Your task to perform on an android device: Open the calendar app, open the side menu, and click the "Day" option Image 0: 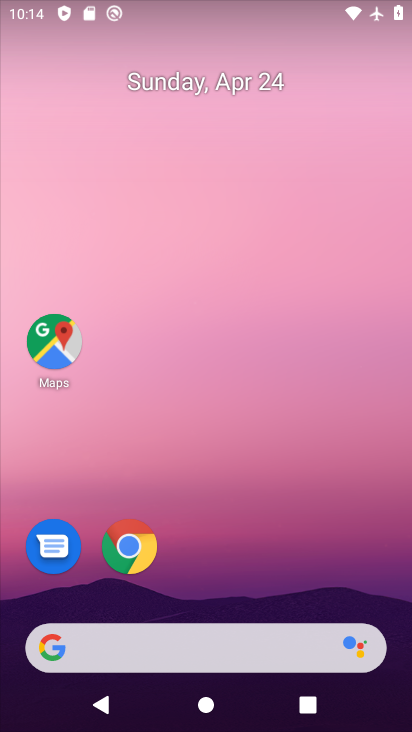
Step 0: drag from (393, 511) to (410, 83)
Your task to perform on an android device: Open the calendar app, open the side menu, and click the "Day" option Image 1: 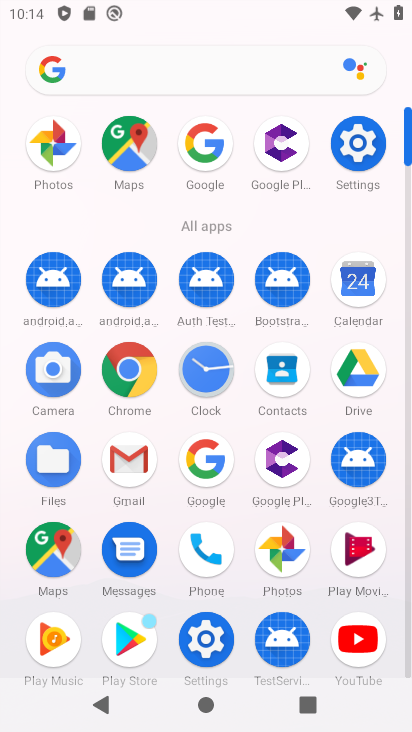
Step 1: click (353, 283)
Your task to perform on an android device: Open the calendar app, open the side menu, and click the "Day" option Image 2: 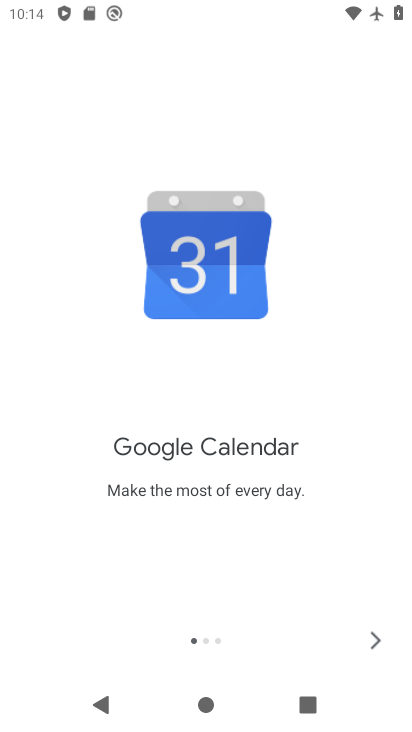
Step 2: click (370, 628)
Your task to perform on an android device: Open the calendar app, open the side menu, and click the "Day" option Image 3: 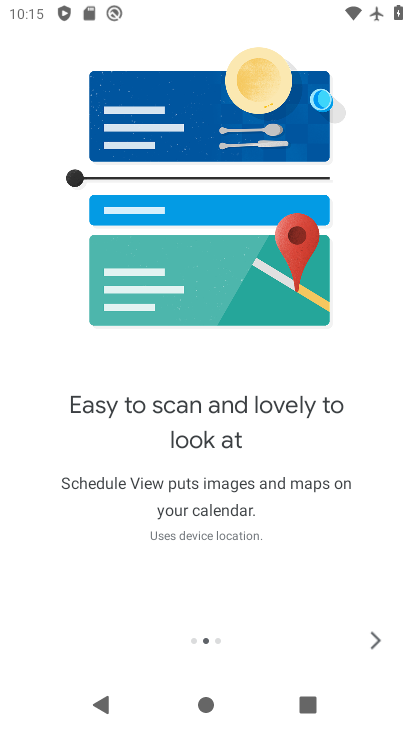
Step 3: click (371, 626)
Your task to perform on an android device: Open the calendar app, open the side menu, and click the "Day" option Image 4: 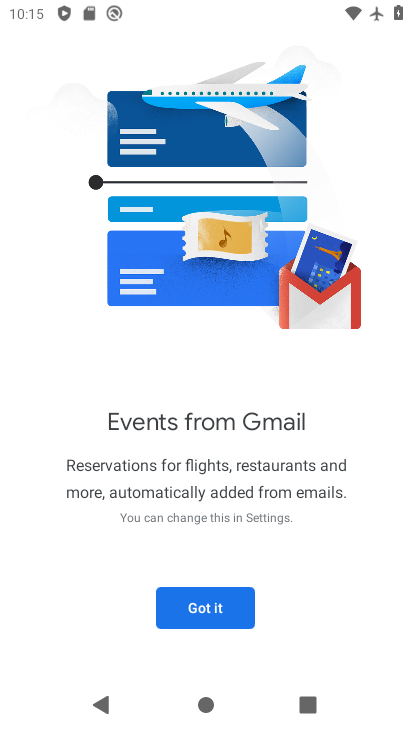
Step 4: click (225, 615)
Your task to perform on an android device: Open the calendar app, open the side menu, and click the "Day" option Image 5: 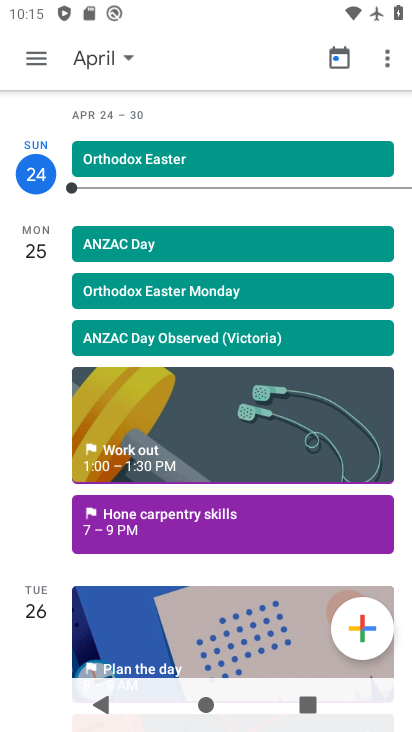
Step 5: click (40, 65)
Your task to perform on an android device: Open the calendar app, open the side menu, and click the "Day" option Image 6: 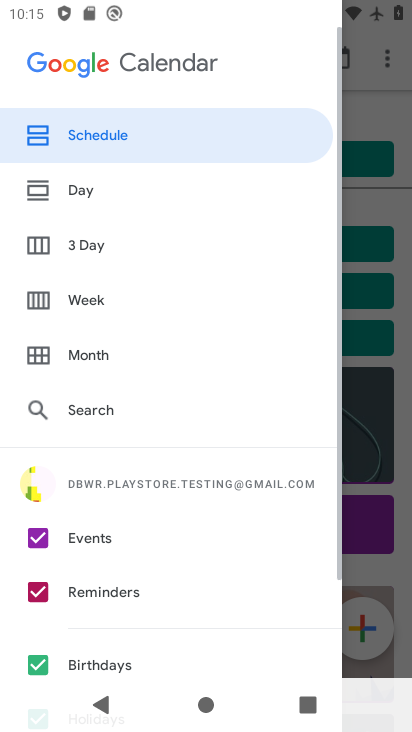
Step 6: click (80, 195)
Your task to perform on an android device: Open the calendar app, open the side menu, and click the "Day" option Image 7: 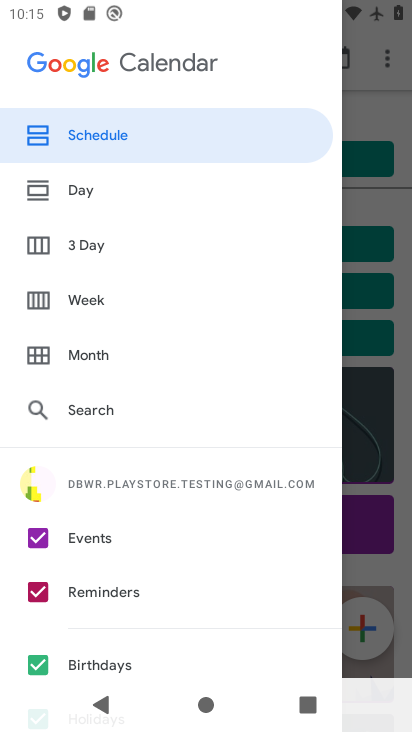
Step 7: click (58, 187)
Your task to perform on an android device: Open the calendar app, open the side menu, and click the "Day" option Image 8: 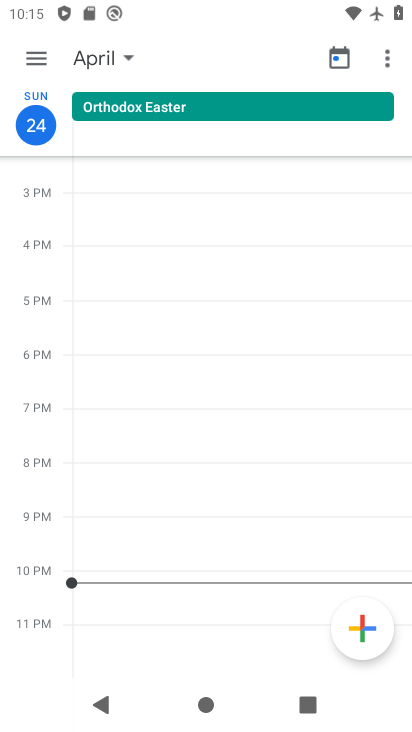
Step 8: task complete